Your task to perform on an android device: Open settings Image 0: 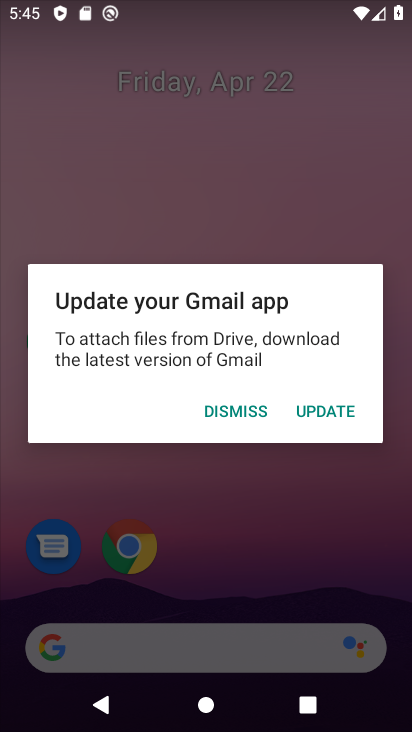
Step 0: drag from (274, 397) to (217, 113)
Your task to perform on an android device: Open settings Image 1: 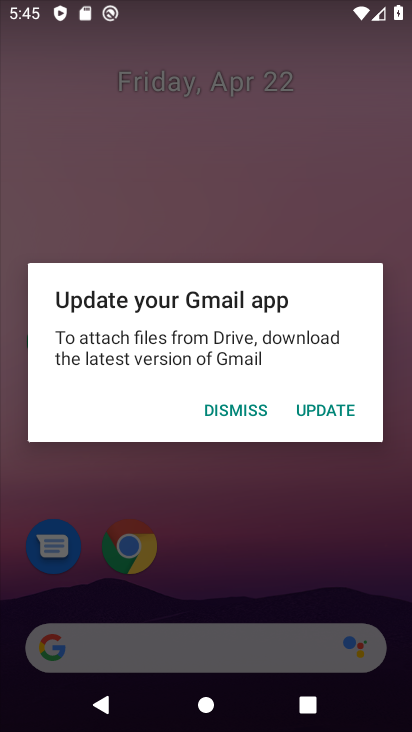
Step 1: press home button
Your task to perform on an android device: Open settings Image 2: 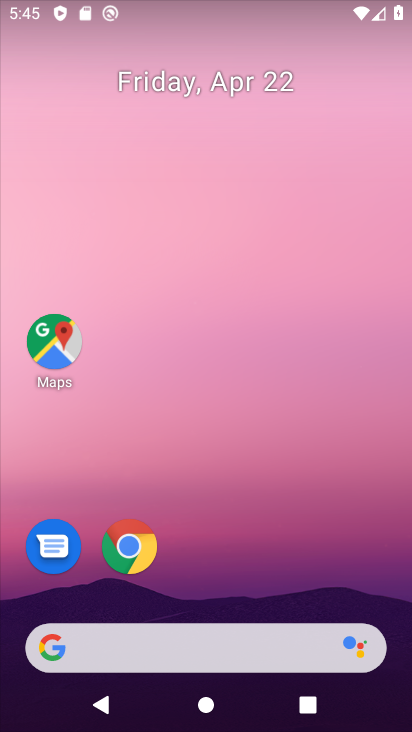
Step 2: drag from (215, 440) to (240, 143)
Your task to perform on an android device: Open settings Image 3: 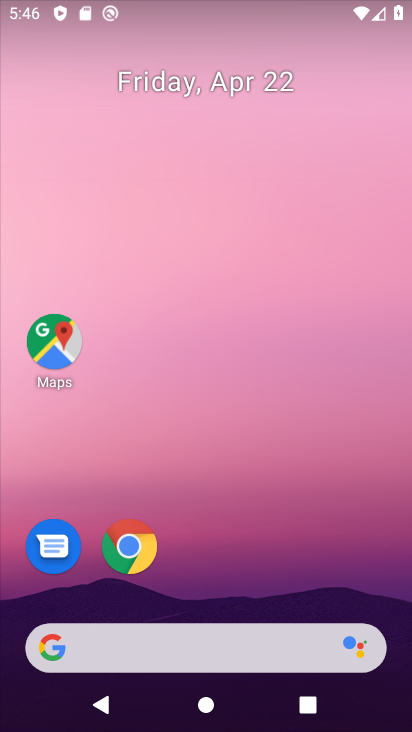
Step 3: drag from (268, 560) to (270, 67)
Your task to perform on an android device: Open settings Image 4: 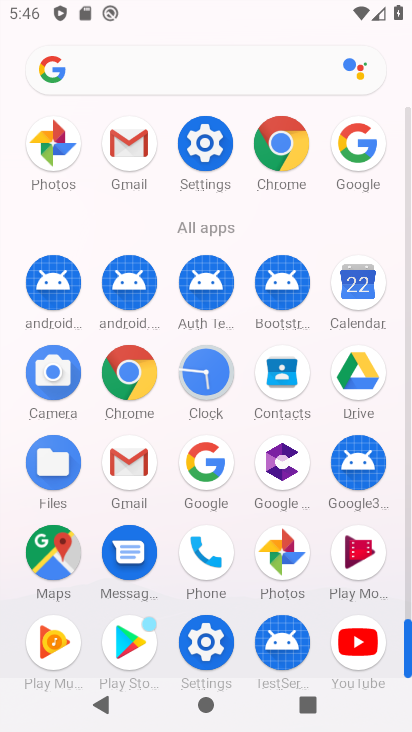
Step 4: click (209, 140)
Your task to perform on an android device: Open settings Image 5: 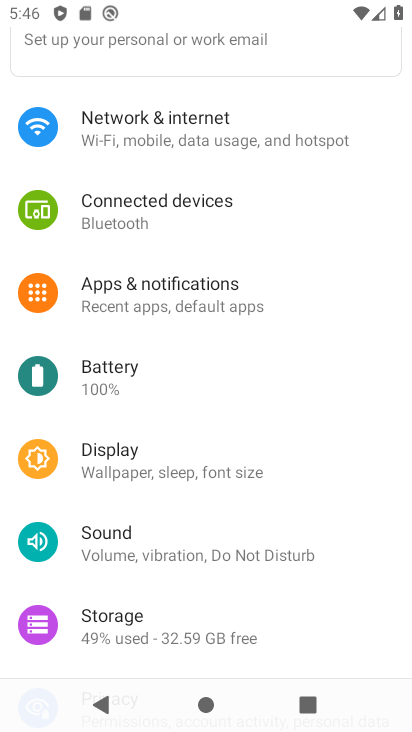
Step 5: task complete